Your task to perform on an android device: What's the weather going to be tomorrow? Image 0: 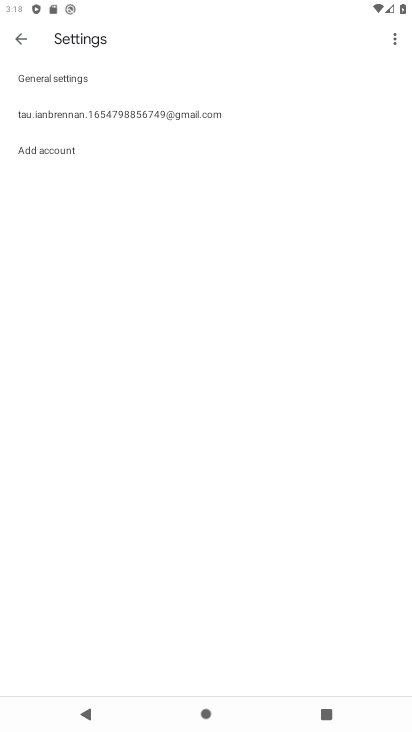
Step 0: press home button
Your task to perform on an android device: What's the weather going to be tomorrow? Image 1: 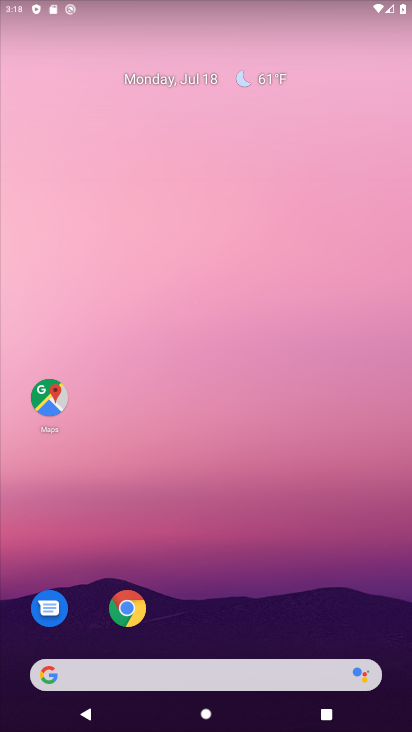
Step 1: drag from (269, 623) to (246, 91)
Your task to perform on an android device: What's the weather going to be tomorrow? Image 2: 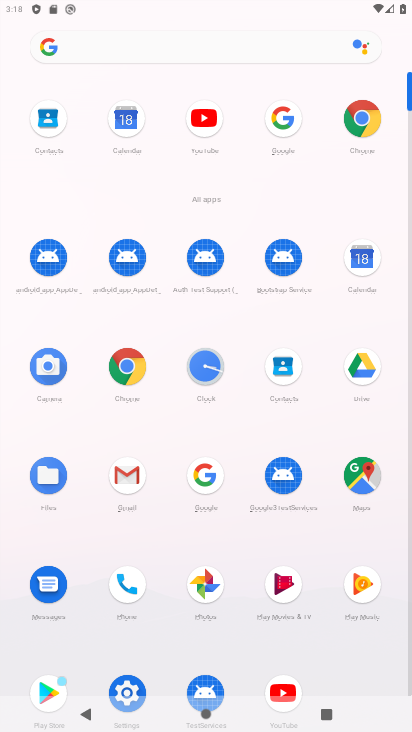
Step 2: click (367, 110)
Your task to perform on an android device: What's the weather going to be tomorrow? Image 3: 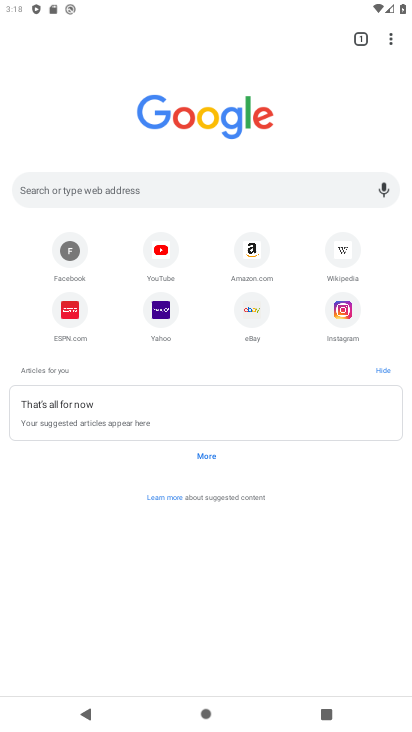
Step 3: click (190, 188)
Your task to perform on an android device: What's the weather going to be tomorrow? Image 4: 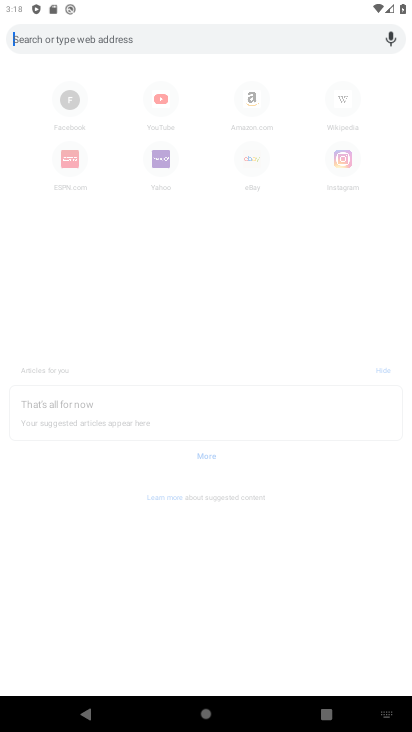
Step 4: type "weather"
Your task to perform on an android device: What's the weather going to be tomorrow? Image 5: 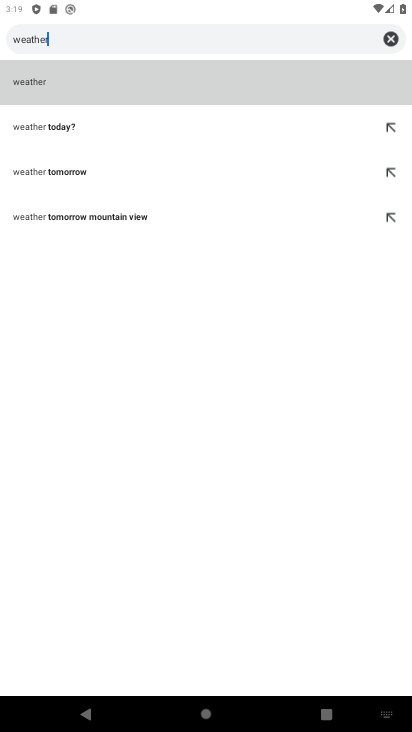
Step 5: click (37, 85)
Your task to perform on an android device: What's the weather going to be tomorrow? Image 6: 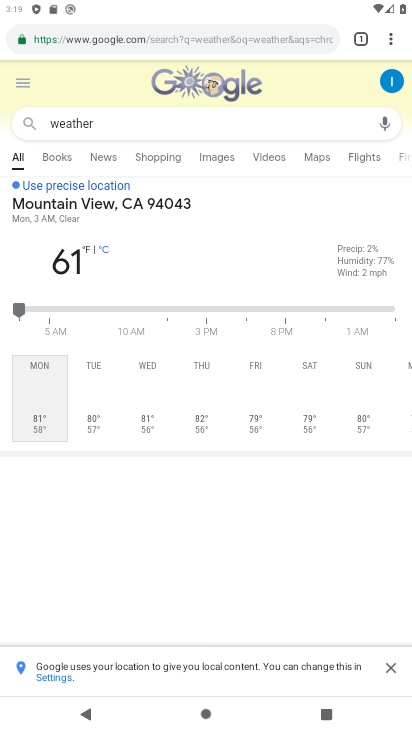
Step 6: click (96, 380)
Your task to perform on an android device: What's the weather going to be tomorrow? Image 7: 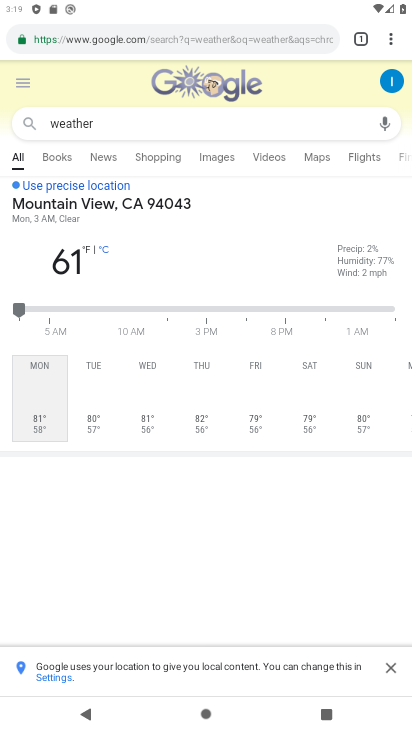
Step 7: click (98, 393)
Your task to perform on an android device: What's the weather going to be tomorrow? Image 8: 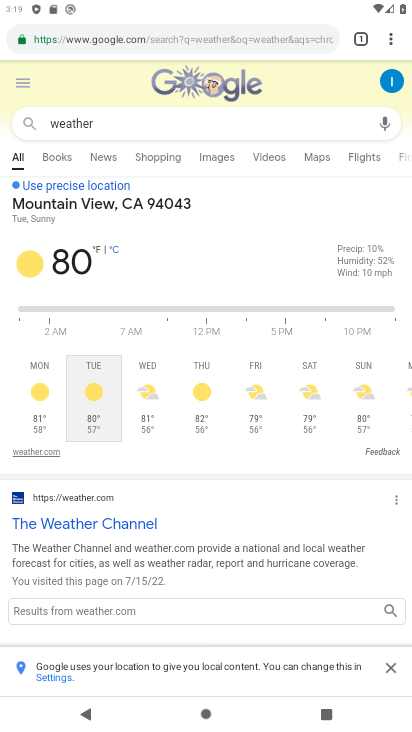
Step 8: task complete